Your task to perform on an android device: turn on wifi Image 0: 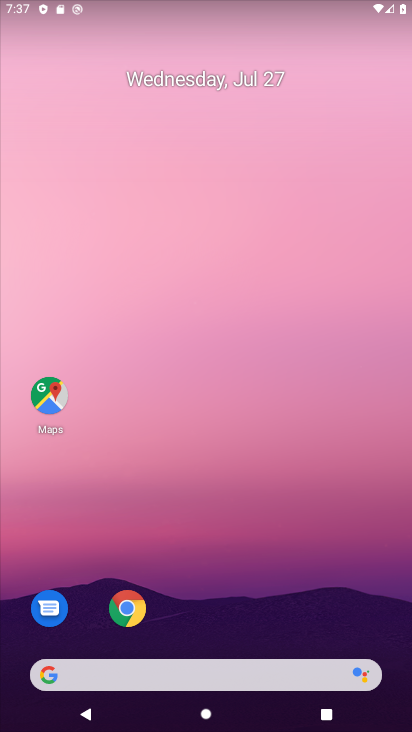
Step 0: drag from (274, 574) to (332, 202)
Your task to perform on an android device: turn on wifi Image 1: 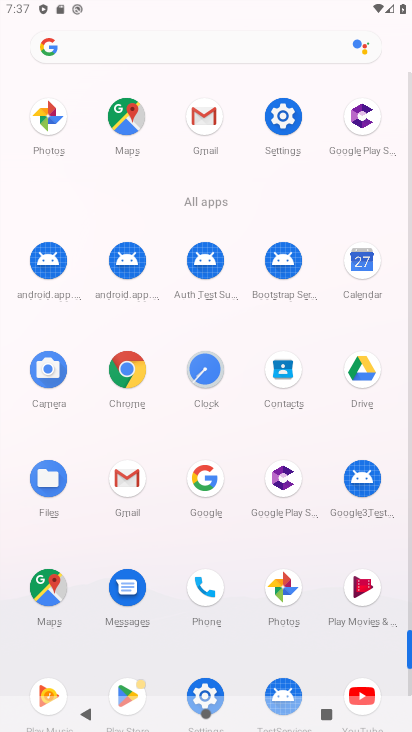
Step 1: click (292, 123)
Your task to perform on an android device: turn on wifi Image 2: 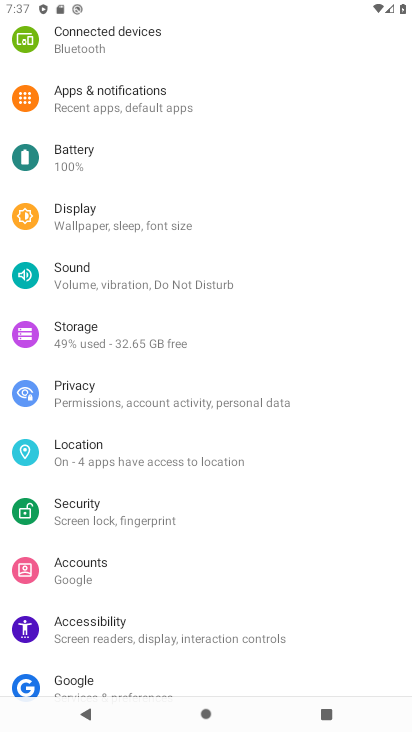
Step 2: task complete